Your task to perform on an android device: toggle translation in the chrome app Image 0: 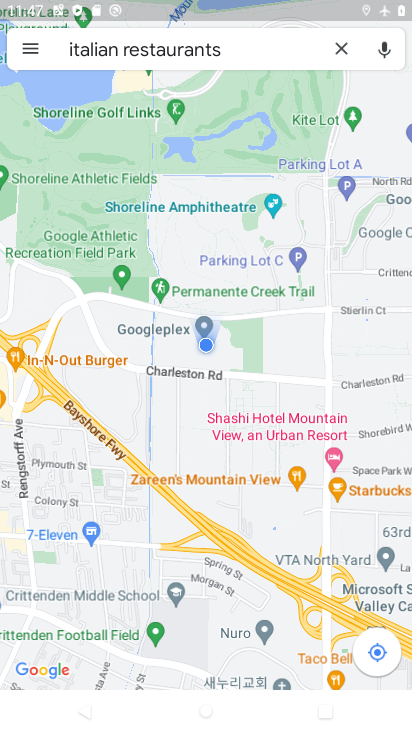
Step 0: press home button
Your task to perform on an android device: toggle translation in the chrome app Image 1: 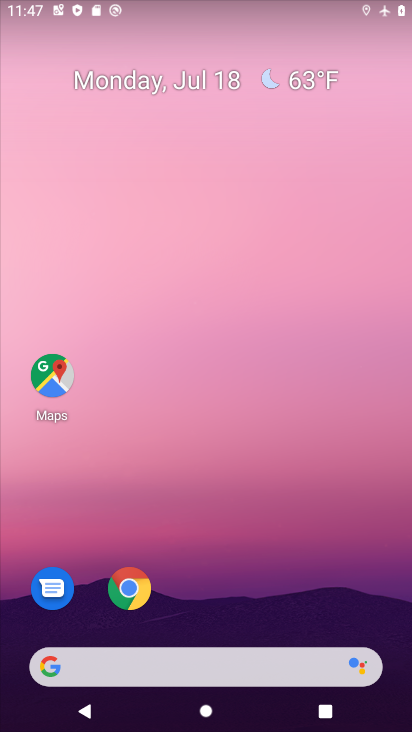
Step 1: drag from (225, 615) to (345, 0)
Your task to perform on an android device: toggle translation in the chrome app Image 2: 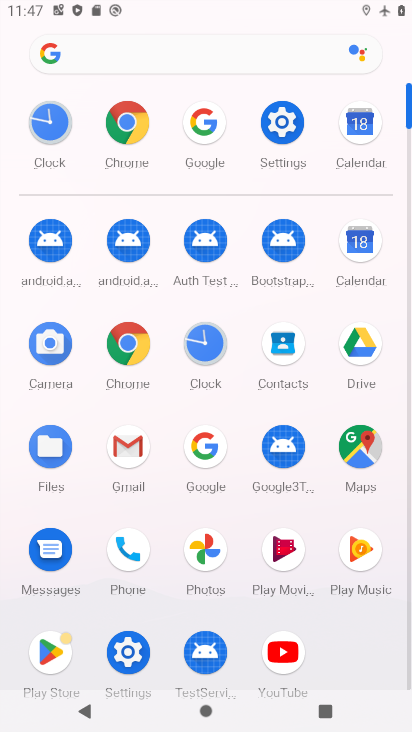
Step 2: click (149, 130)
Your task to perform on an android device: toggle translation in the chrome app Image 3: 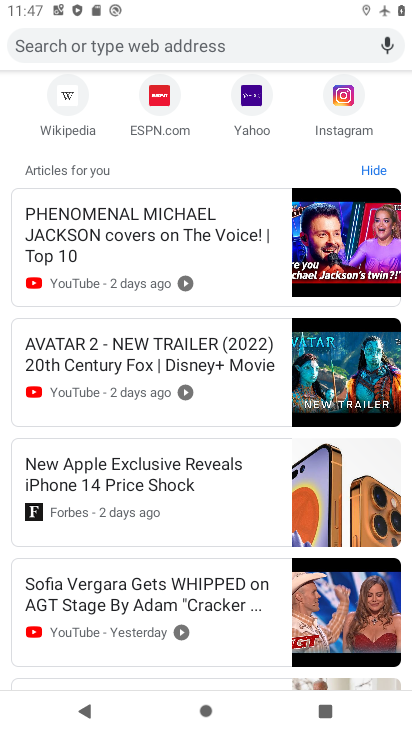
Step 3: drag from (119, 292) to (108, 664)
Your task to perform on an android device: toggle translation in the chrome app Image 4: 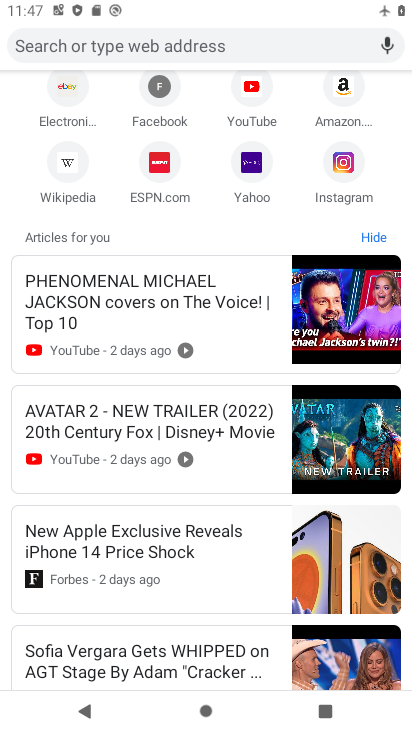
Step 4: drag from (193, 311) to (211, 589)
Your task to perform on an android device: toggle translation in the chrome app Image 5: 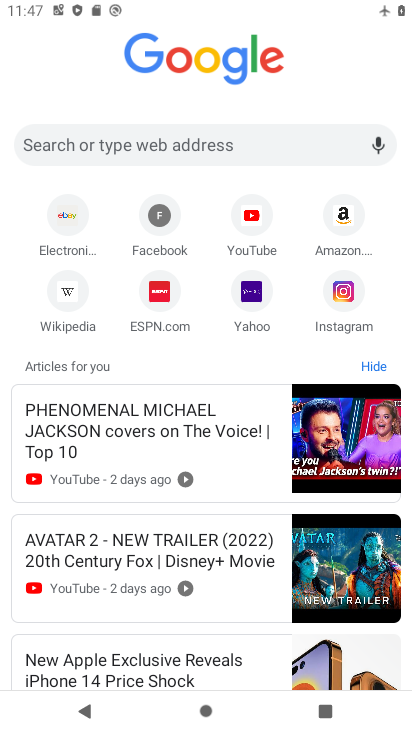
Step 5: drag from (232, 108) to (199, 542)
Your task to perform on an android device: toggle translation in the chrome app Image 6: 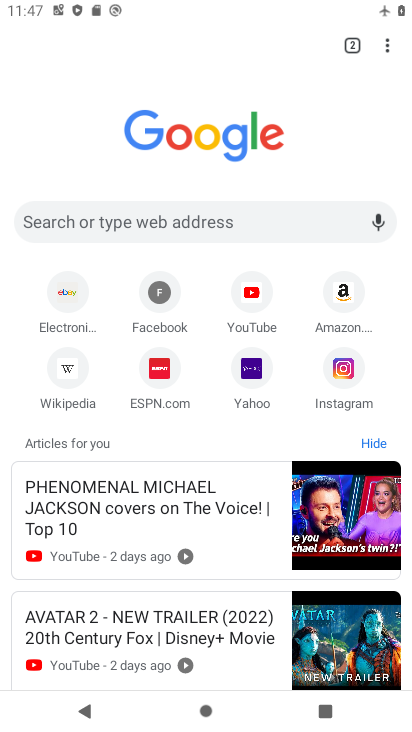
Step 6: drag from (389, 44) to (231, 386)
Your task to perform on an android device: toggle translation in the chrome app Image 7: 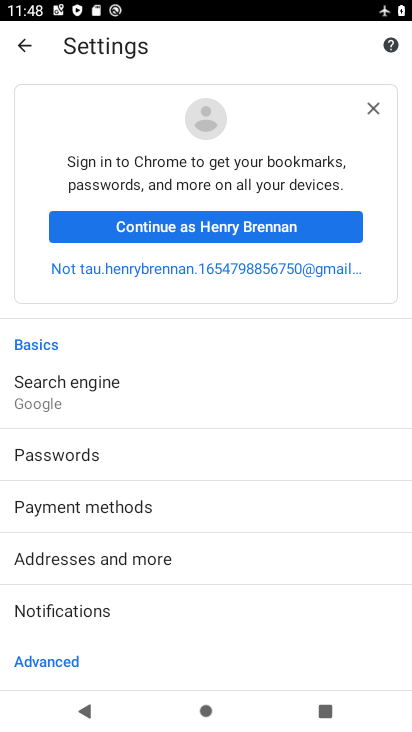
Step 7: drag from (169, 636) to (301, 70)
Your task to perform on an android device: toggle translation in the chrome app Image 8: 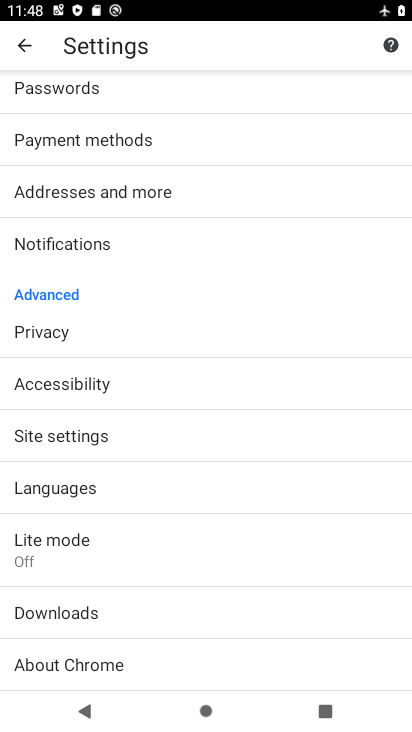
Step 8: click (80, 481)
Your task to perform on an android device: toggle translation in the chrome app Image 9: 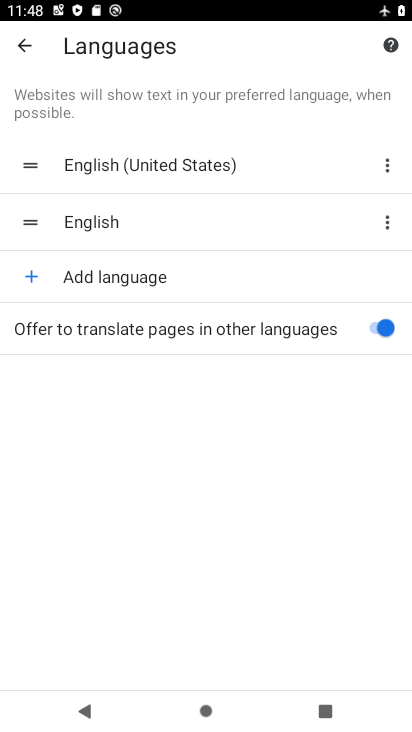
Step 9: task complete